Your task to perform on an android device: Search for "dell alienware" on amazon, select the first entry, add it to the cart, then select checkout. Image 0: 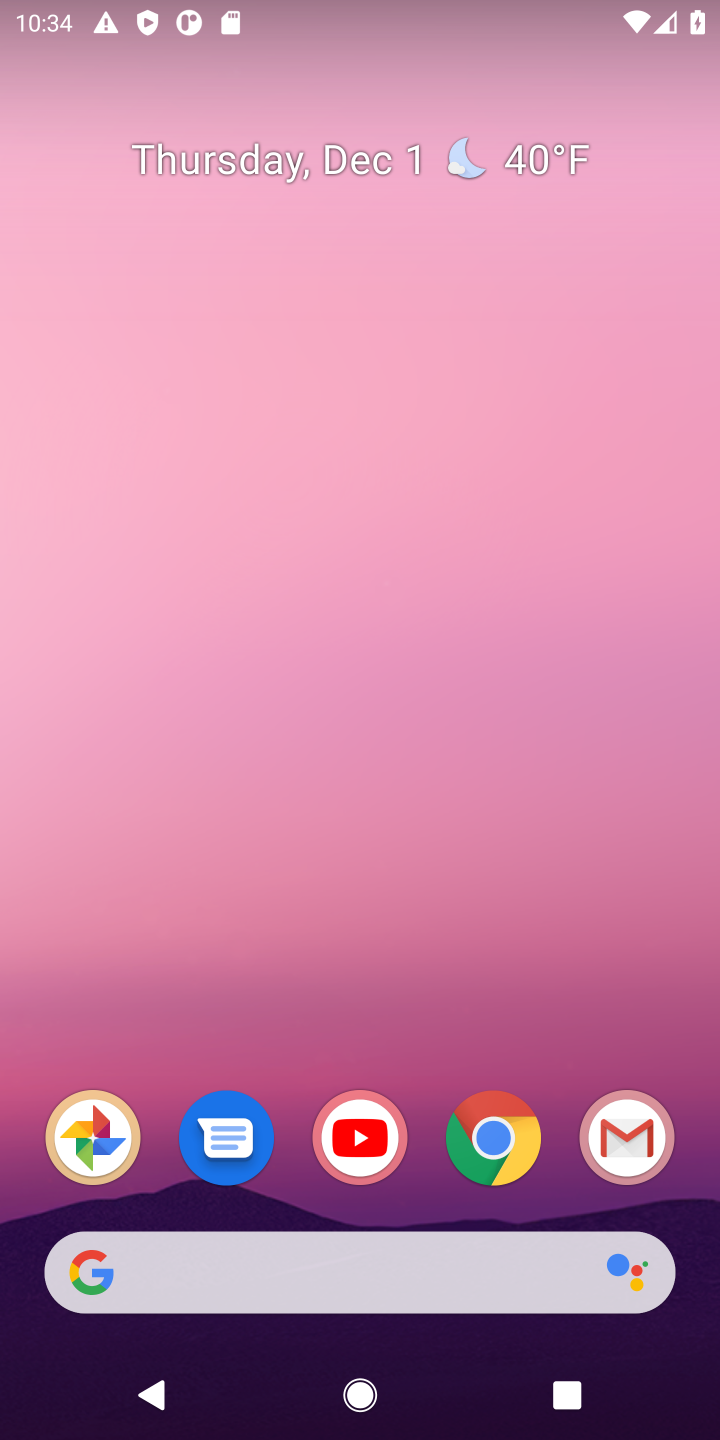
Step 0: drag from (353, 1005) to (597, 885)
Your task to perform on an android device: Search for "dell alienware" on amazon, select the first entry, add it to the cart, then select checkout. Image 1: 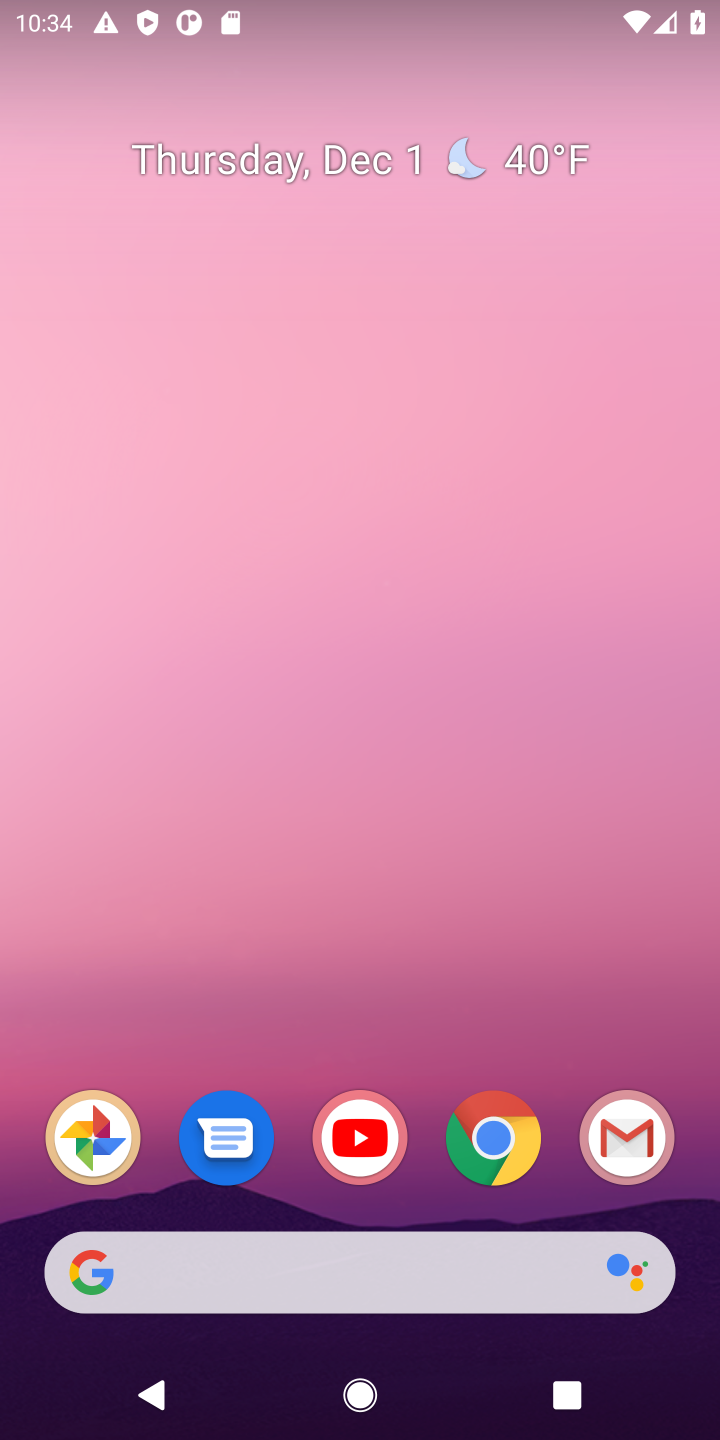
Step 1: drag from (463, 1037) to (455, 112)
Your task to perform on an android device: Search for "dell alienware" on amazon, select the first entry, add it to the cart, then select checkout. Image 2: 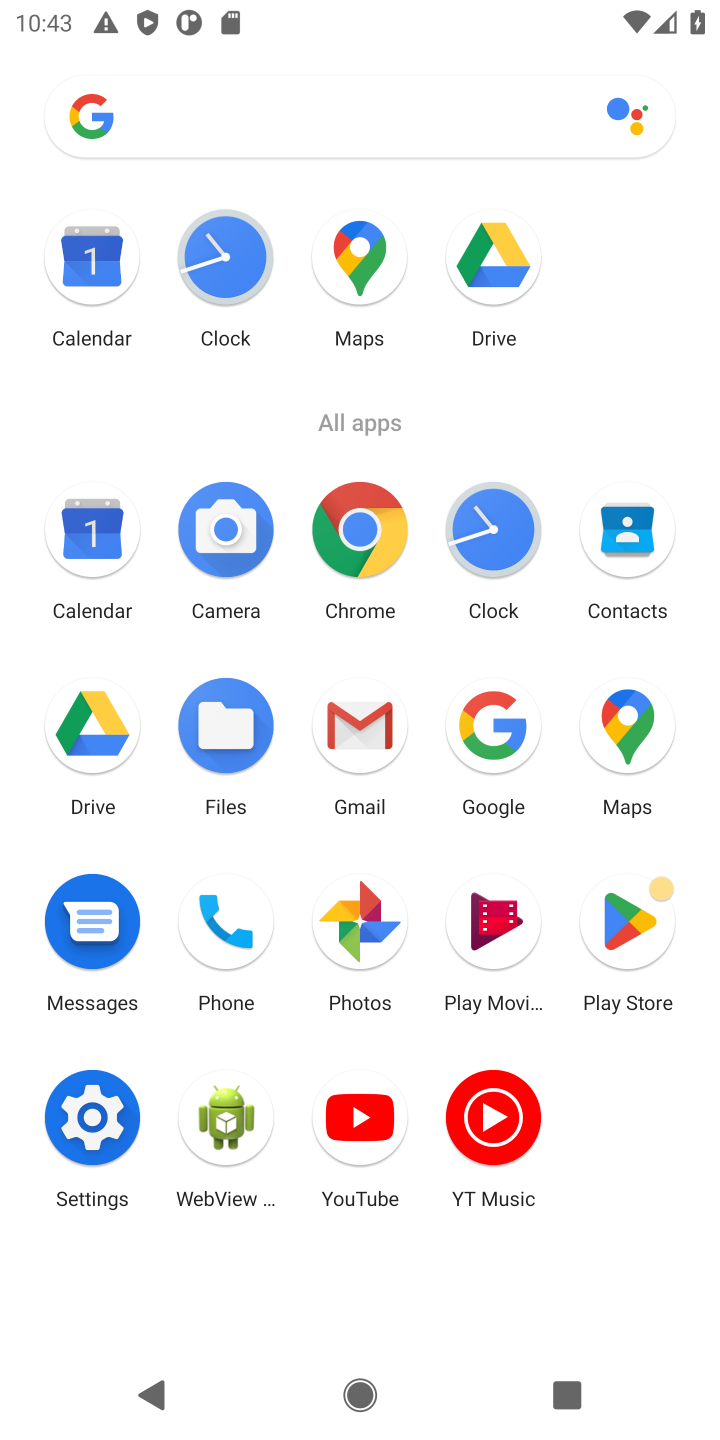
Step 2: click (493, 736)
Your task to perform on an android device: Search for "dell alienware" on amazon, select the first entry, add it to the cart, then select checkout. Image 3: 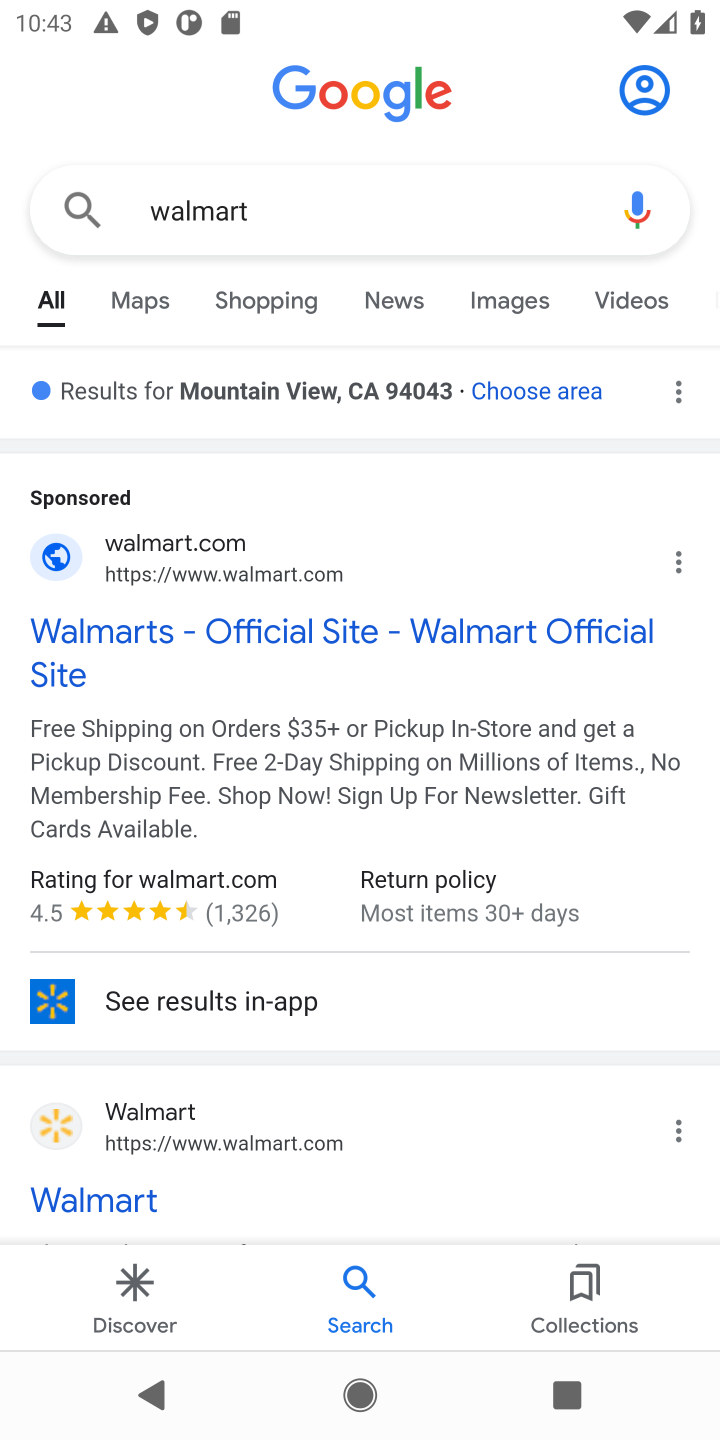
Step 3: click (402, 224)
Your task to perform on an android device: Search for "dell alienware" on amazon, select the first entry, add it to the cart, then select checkout. Image 4: 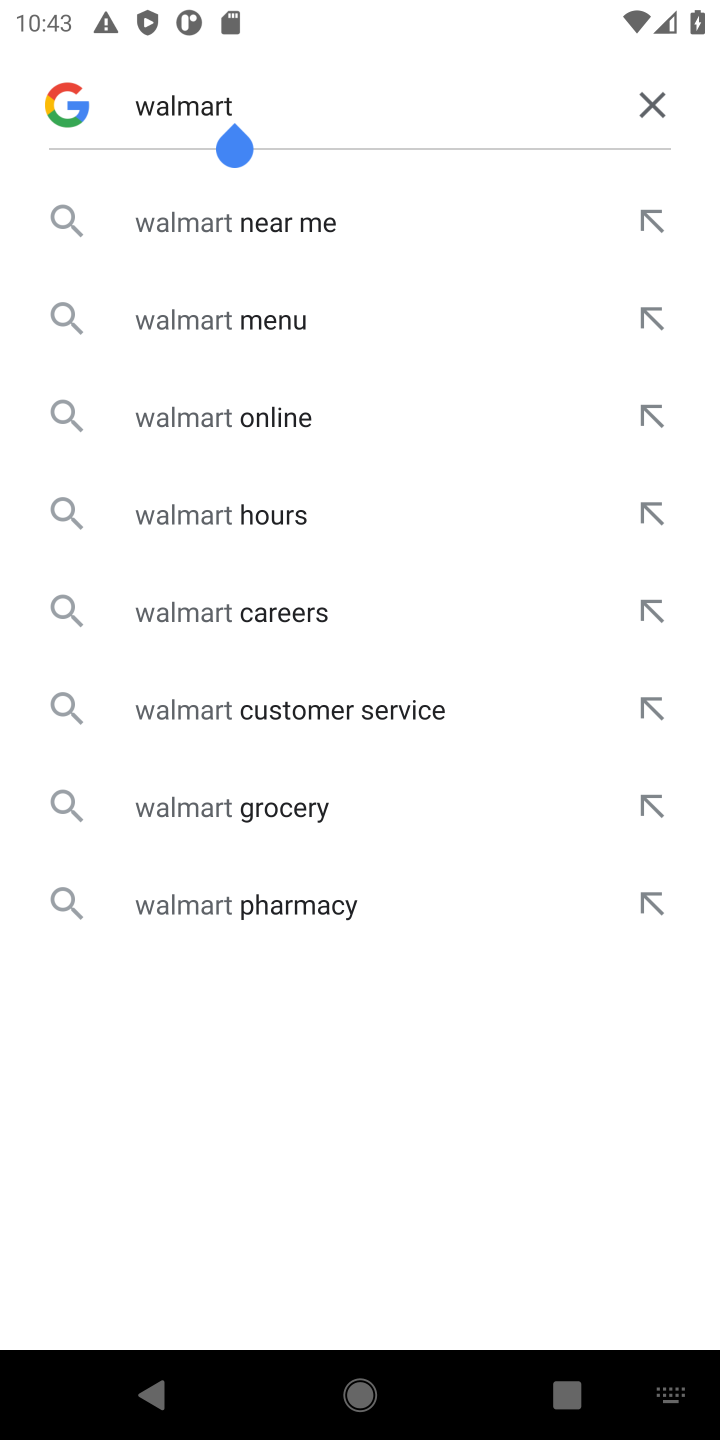
Step 4: click (657, 111)
Your task to perform on an android device: Search for "dell alienware" on amazon, select the first entry, add it to the cart, then select checkout. Image 5: 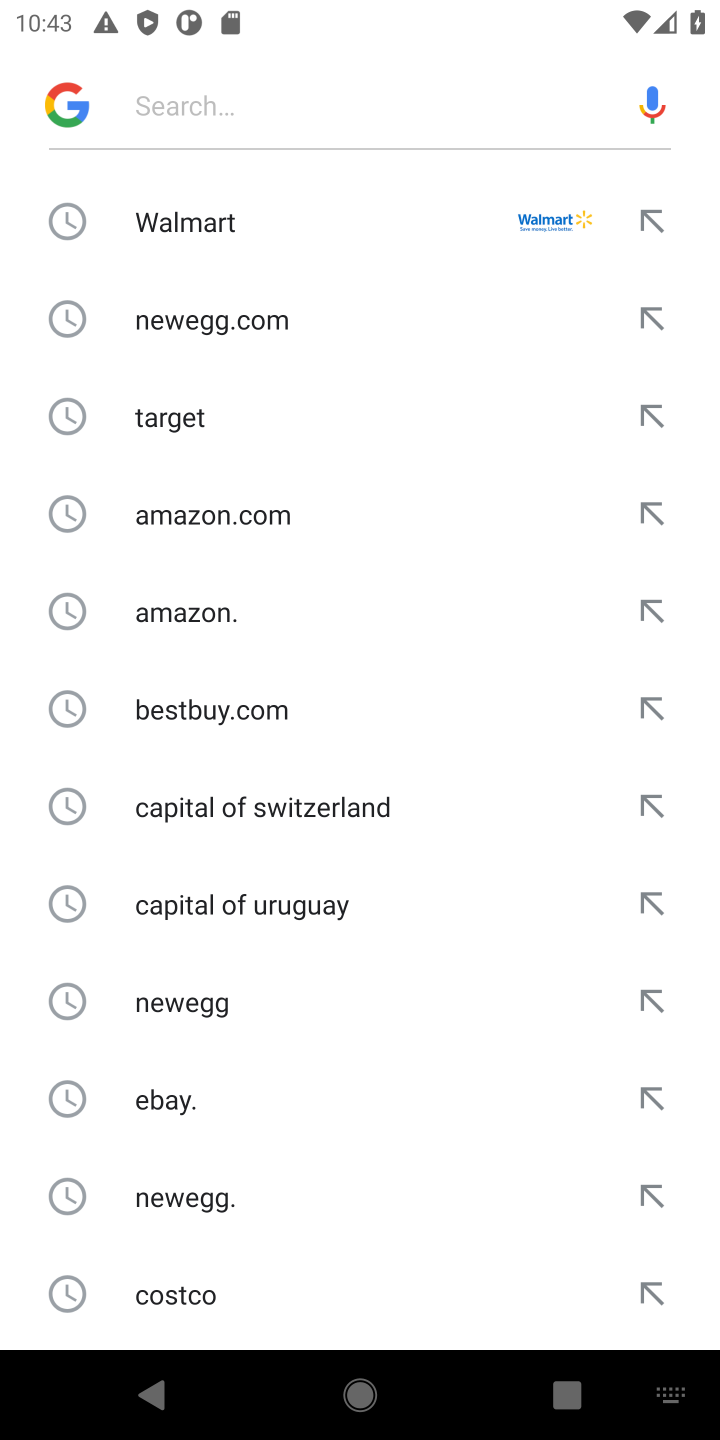
Step 5: type "amzon"
Your task to perform on an android device: Search for "dell alienware" on amazon, select the first entry, add it to the cart, then select checkout. Image 6: 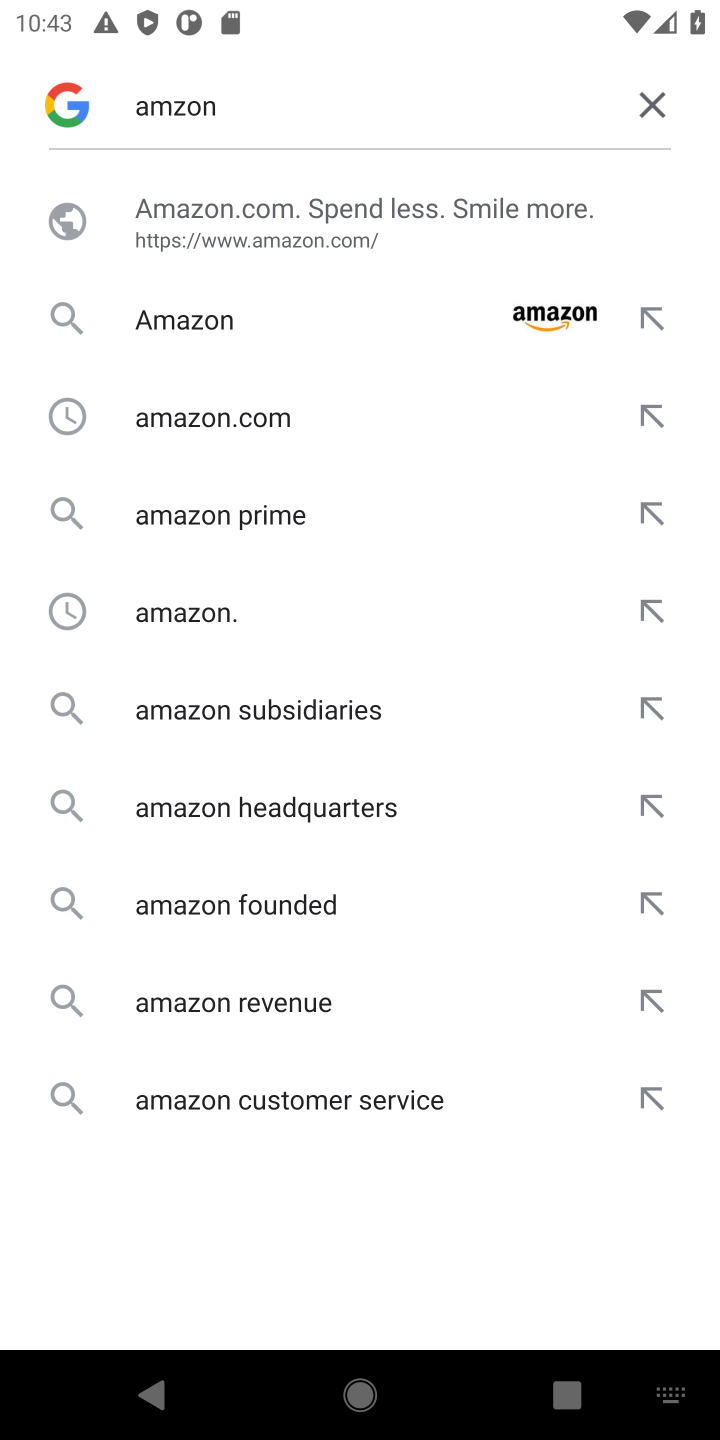
Step 6: click (234, 255)
Your task to perform on an android device: Search for "dell alienware" on amazon, select the first entry, add it to the cart, then select checkout. Image 7: 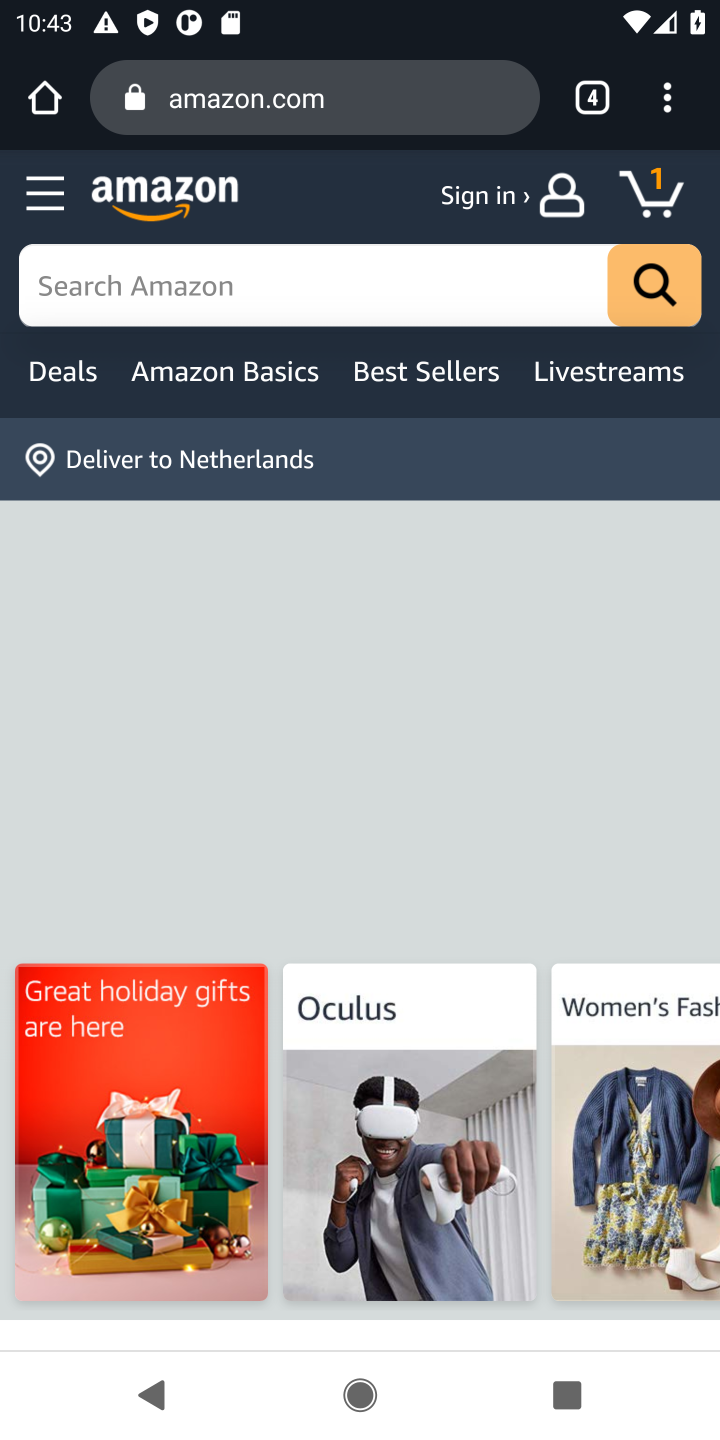
Step 7: click (368, 272)
Your task to perform on an android device: Search for "dell alienware" on amazon, select the first entry, add it to the cart, then select checkout. Image 8: 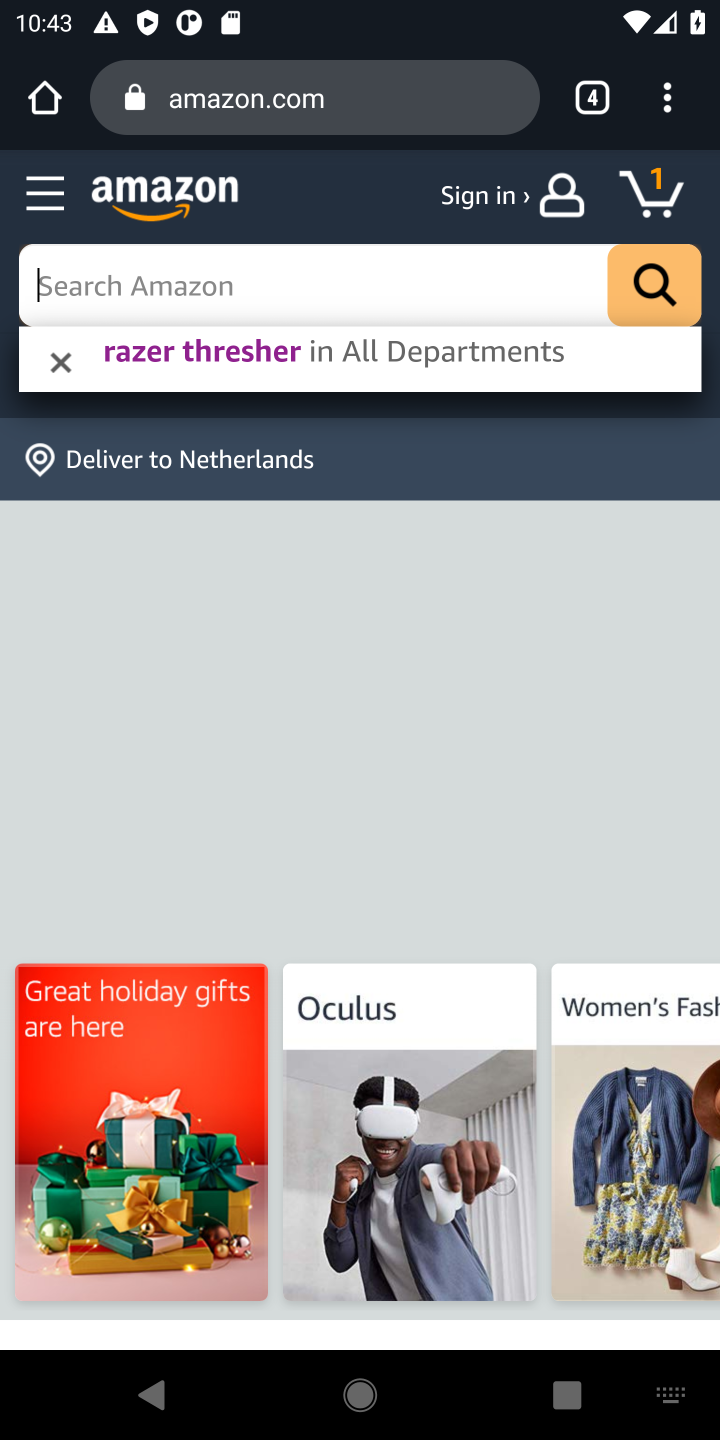
Step 8: type "dell alienware"
Your task to perform on an android device: Search for "dell alienware" on amazon, select the first entry, add it to the cart, then select checkout. Image 9: 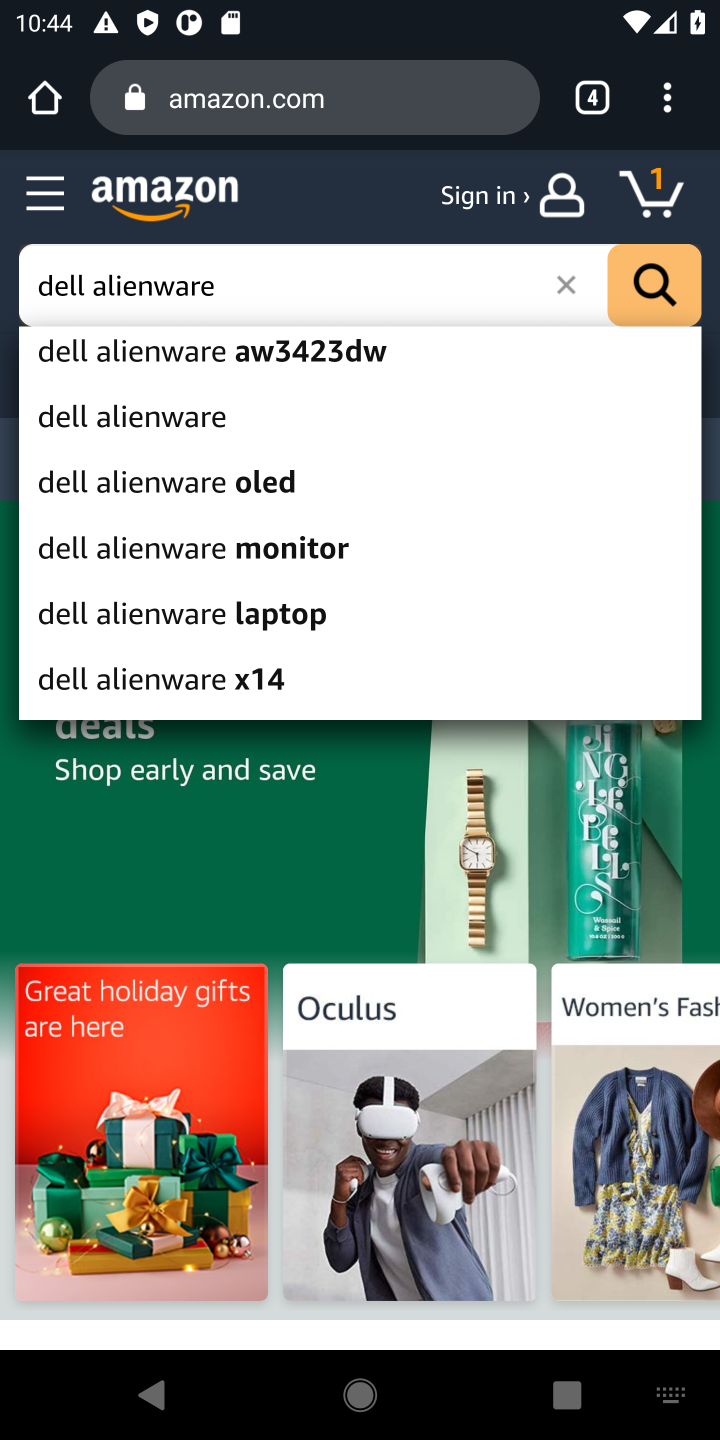
Step 9: click (221, 416)
Your task to perform on an android device: Search for "dell alienware" on amazon, select the first entry, add it to the cart, then select checkout. Image 10: 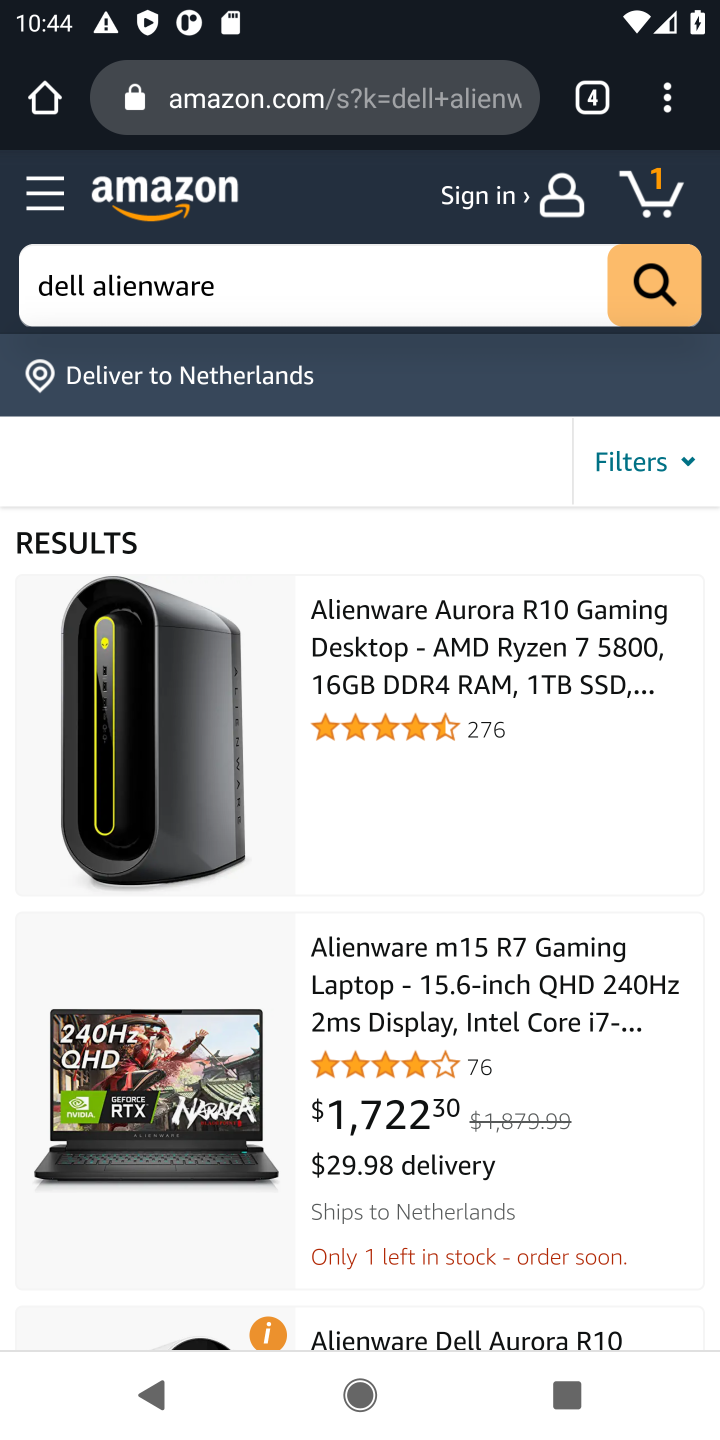
Step 10: drag from (464, 1092) to (458, 690)
Your task to perform on an android device: Search for "dell alienware" on amazon, select the first entry, add it to the cart, then select checkout. Image 11: 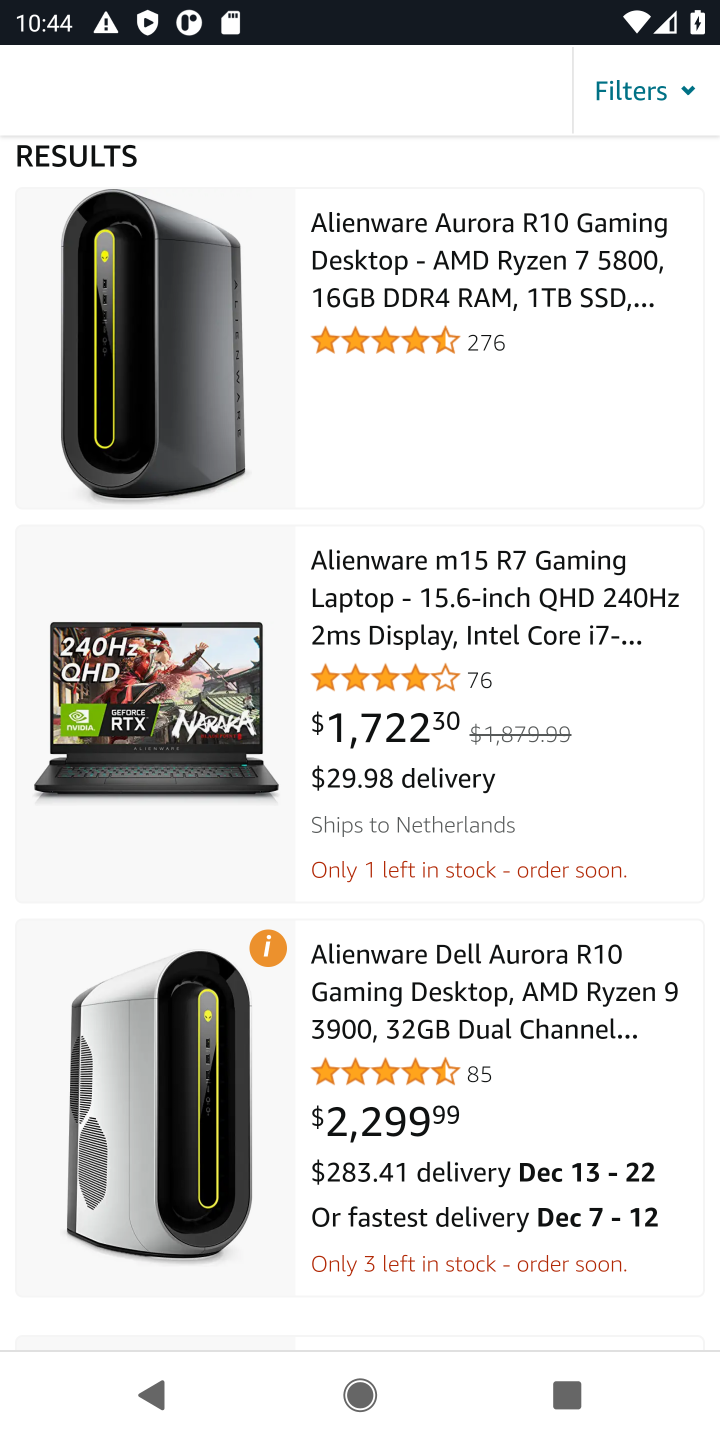
Step 11: drag from (469, 922) to (473, 570)
Your task to perform on an android device: Search for "dell alienware" on amazon, select the first entry, add it to the cart, then select checkout. Image 12: 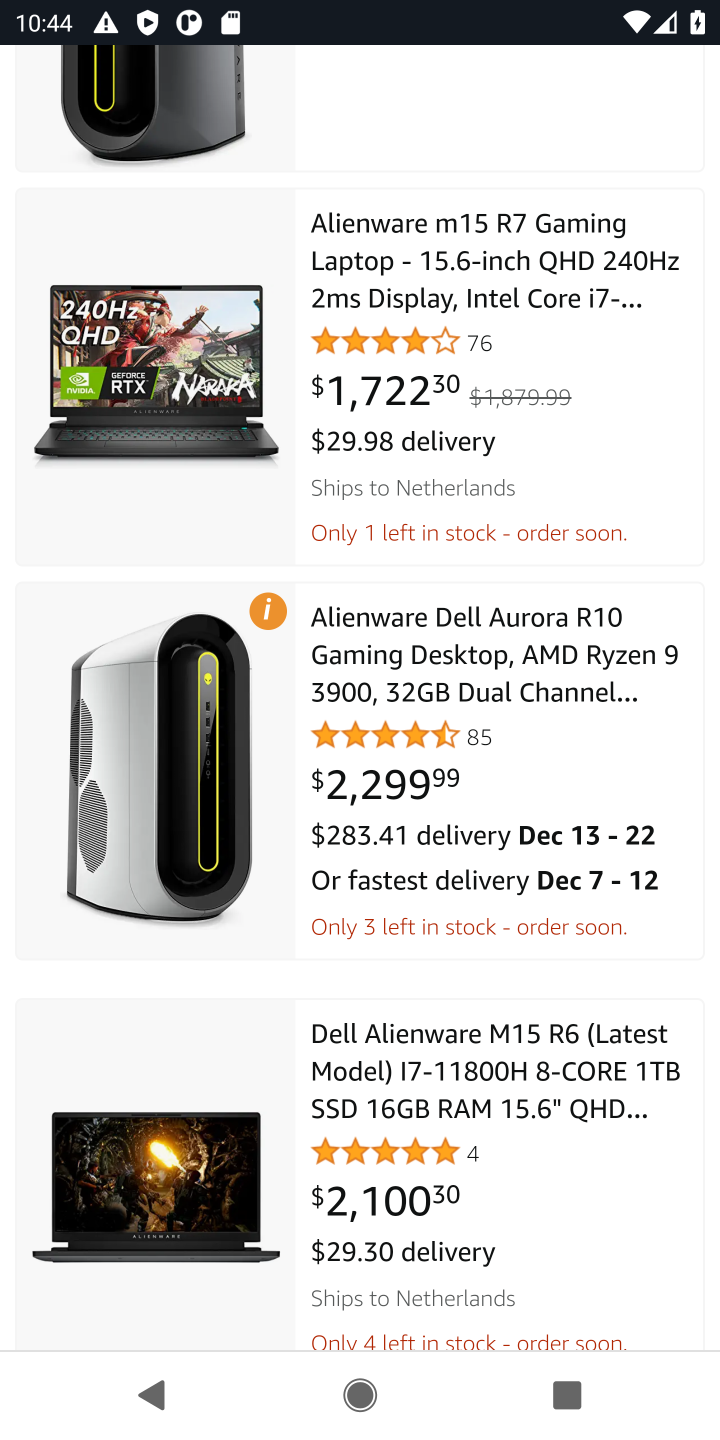
Step 12: drag from (470, 585) to (410, 1162)
Your task to perform on an android device: Search for "dell alienware" on amazon, select the first entry, add it to the cart, then select checkout. Image 13: 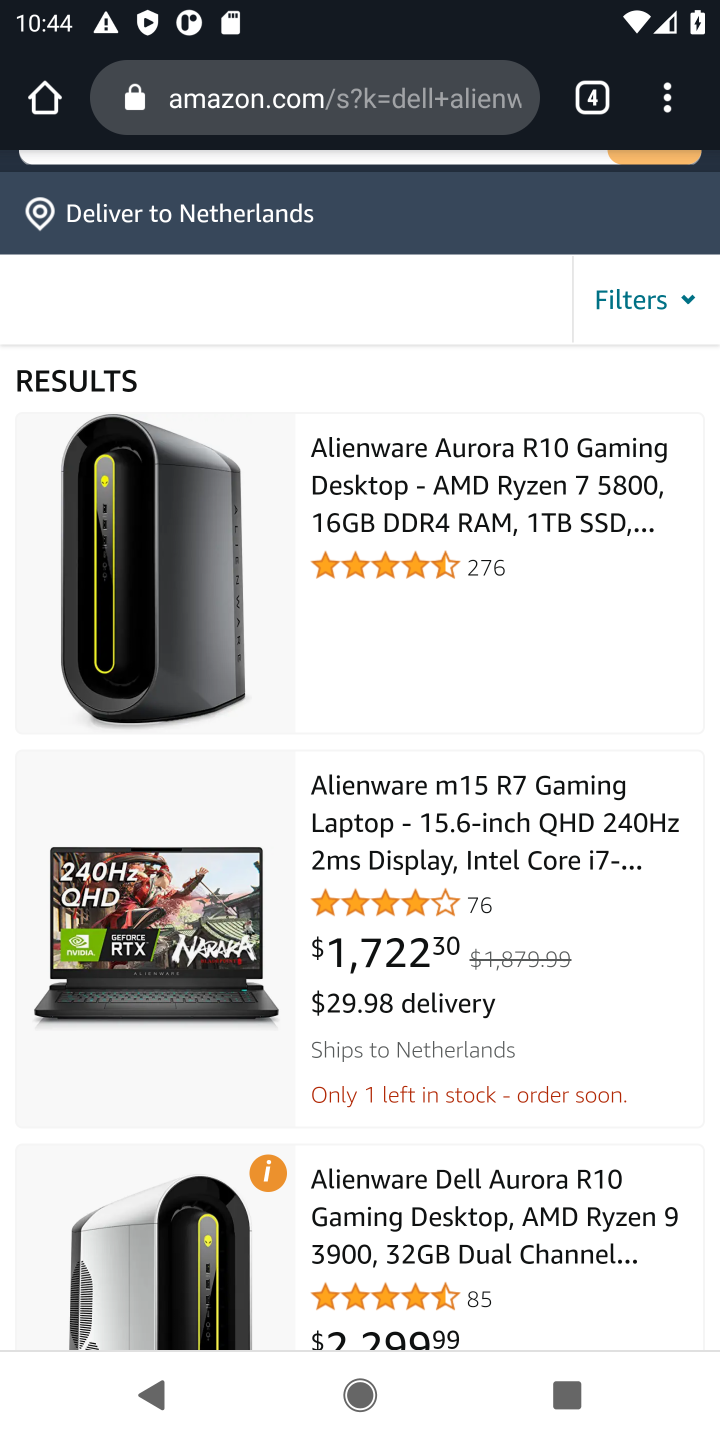
Step 13: click (372, 540)
Your task to perform on an android device: Search for "dell alienware" on amazon, select the first entry, add it to the cart, then select checkout. Image 14: 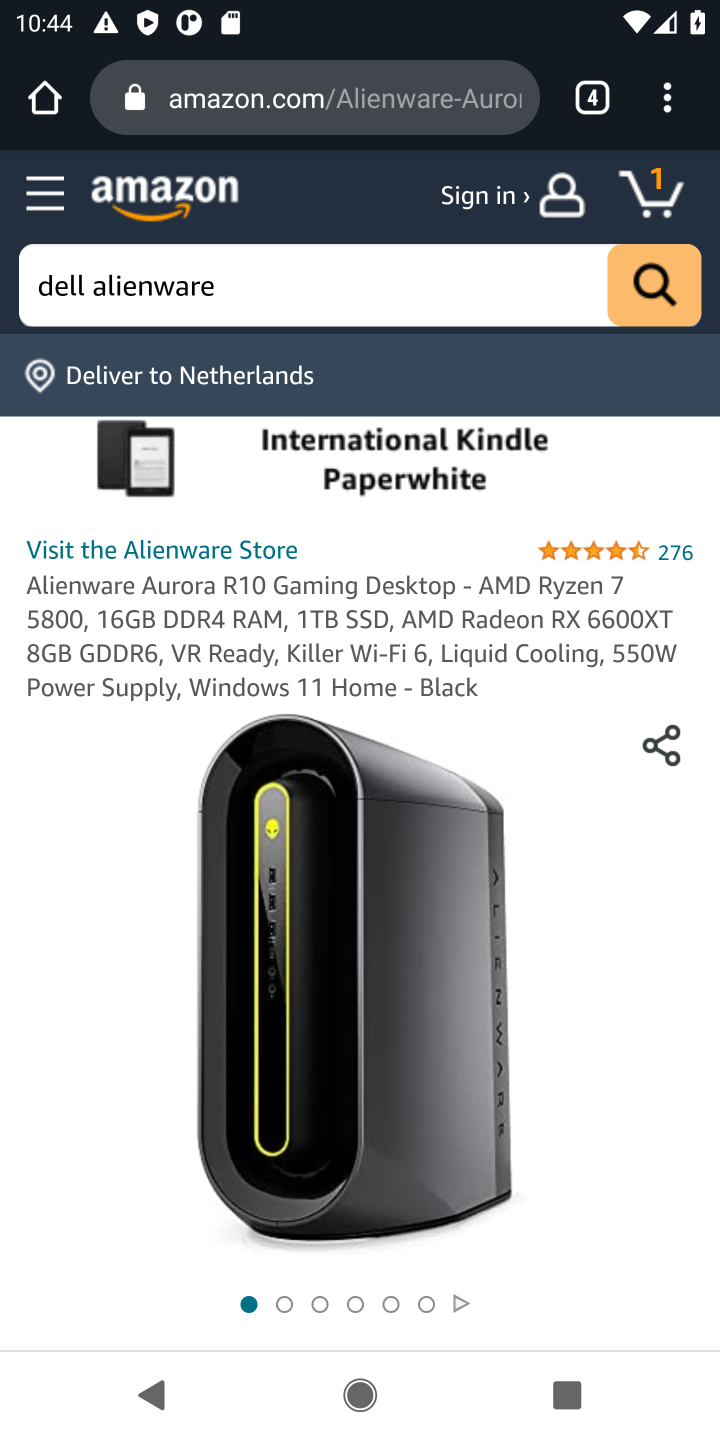
Step 14: drag from (474, 1094) to (454, 551)
Your task to perform on an android device: Search for "dell alienware" on amazon, select the first entry, add it to the cart, then select checkout. Image 15: 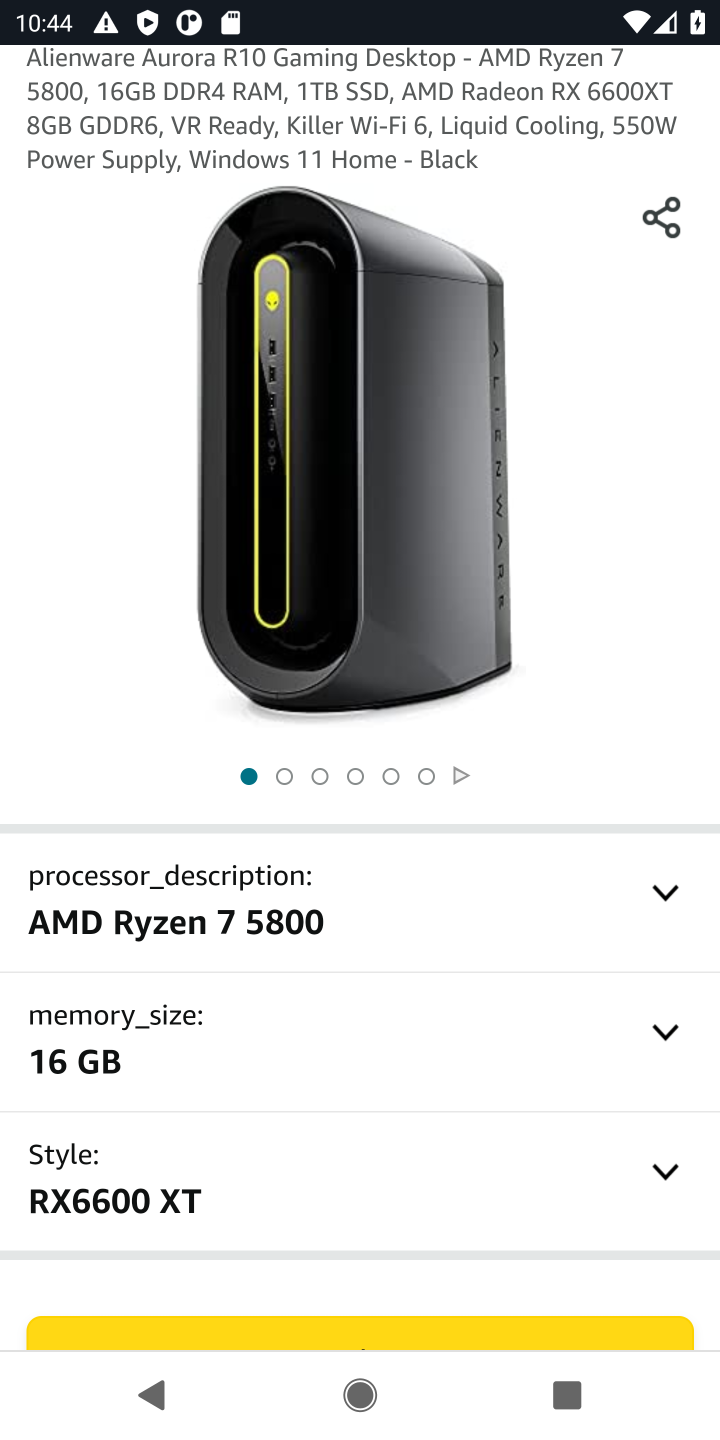
Step 15: drag from (428, 1019) to (393, 507)
Your task to perform on an android device: Search for "dell alienware" on amazon, select the first entry, add it to the cart, then select checkout. Image 16: 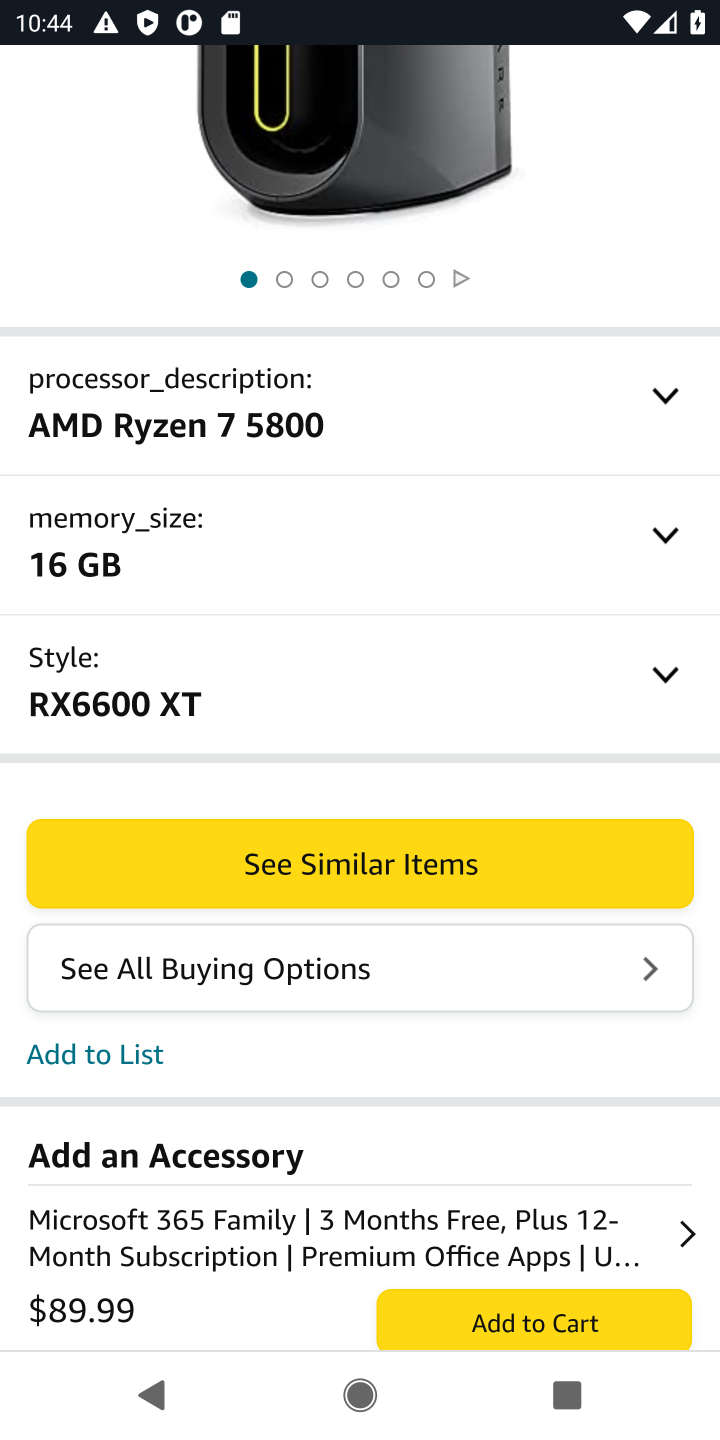
Step 16: click (389, 878)
Your task to perform on an android device: Search for "dell alienware" on amazon, select the first entry, add it to the cart, then select checkout. Image 17: 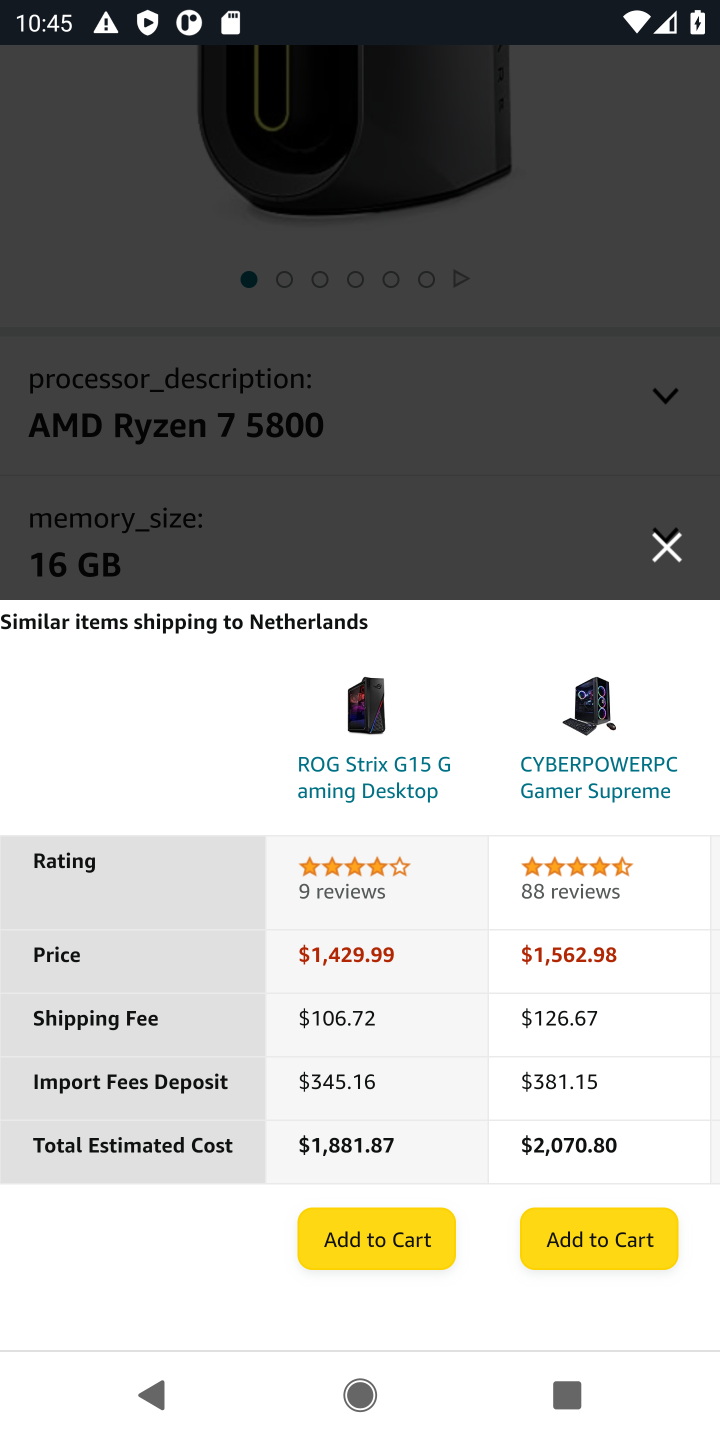
Step 17: click (672, 549)
Your task to perform on an android device: Search for "dell alienware" on amazon, select the first entry, add it to the cart, then select checkout. Image 18: 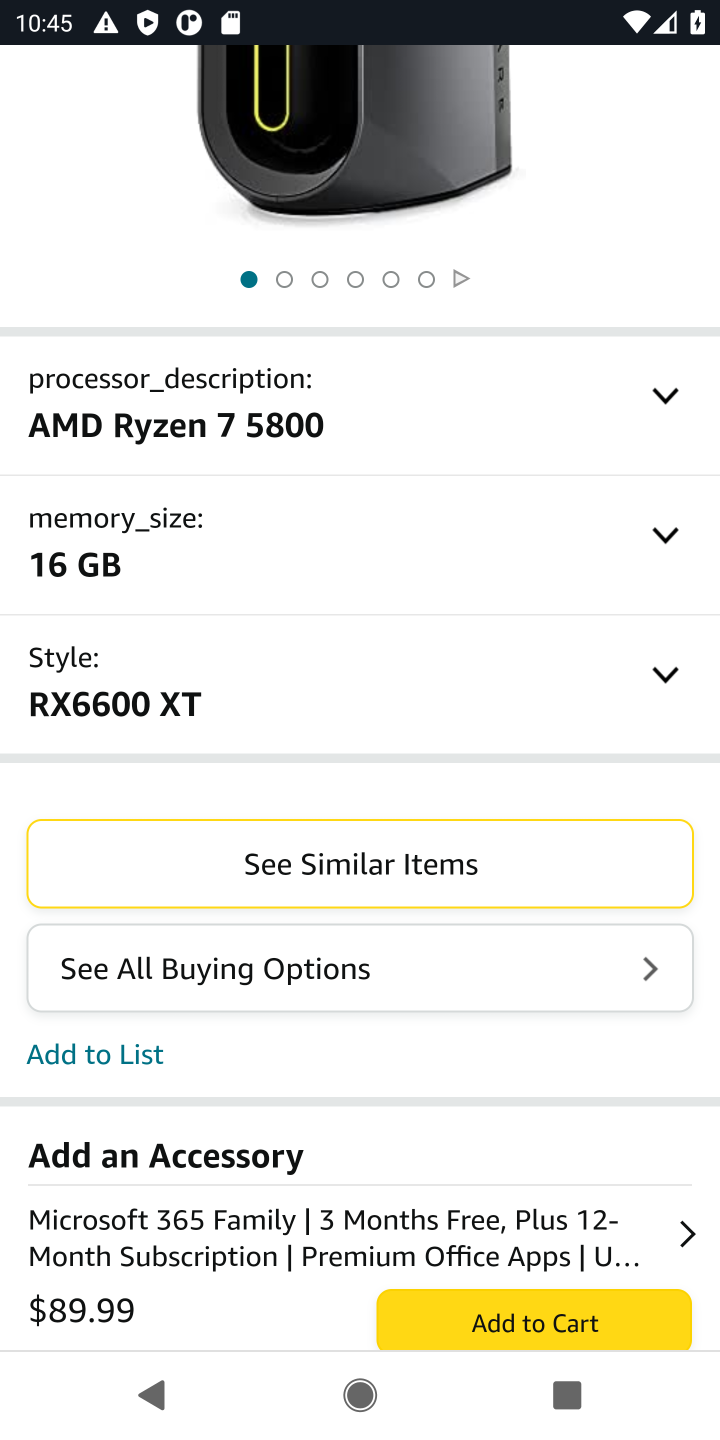
Step 18: task complete